Your task to perform on an android device: allow cookies in the chrome app Image 0: 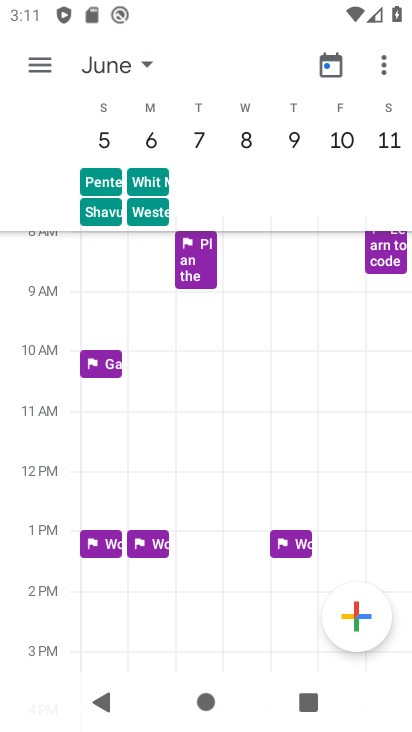
Step 0: press back button
Your task to perform on an android device: allow cookies in the chrome app Image 1: 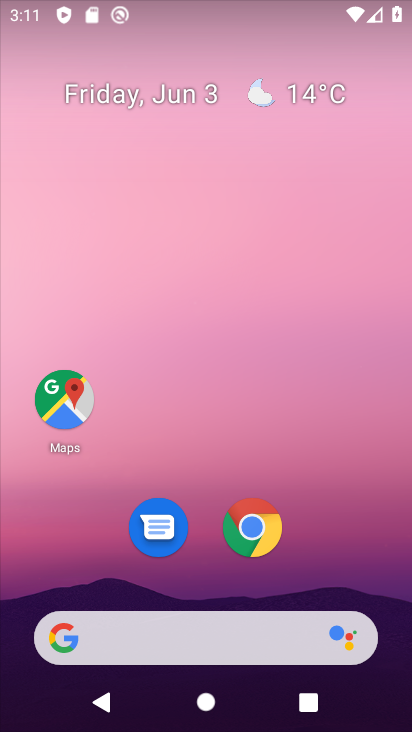
Step 1: click (254, 527)
Your task to perform on an android device: allow cookies in the chrome app Image 2: 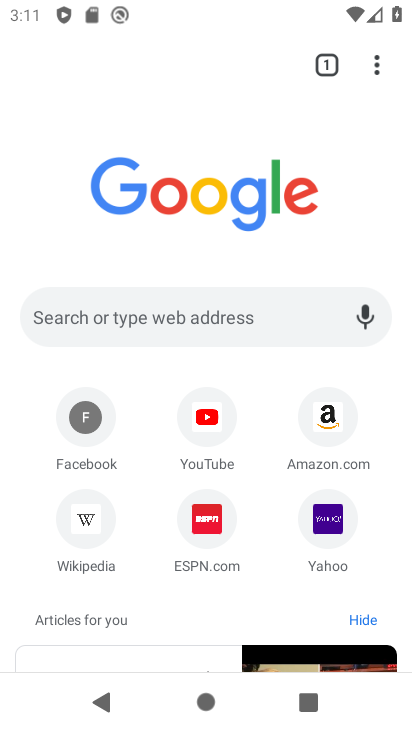
Step 2: click (377, 65)
Your task to perform on an android device: allow cookies in the chrome app Image 3: 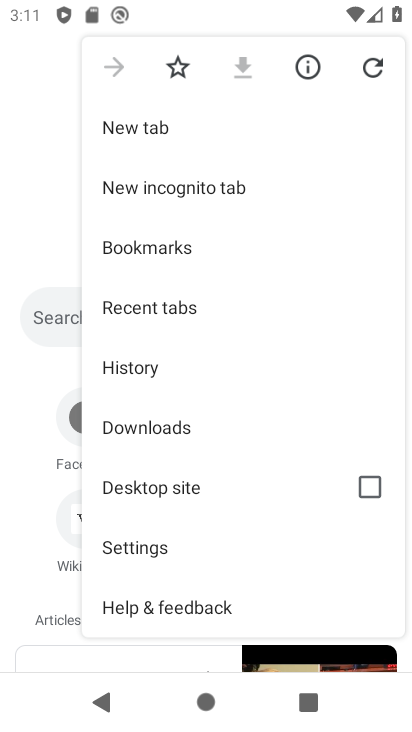
Step 3: drag from (173, 395) to (215, 316)
Your task to perform on an android device: allow cookies in the chrome app Image 4: 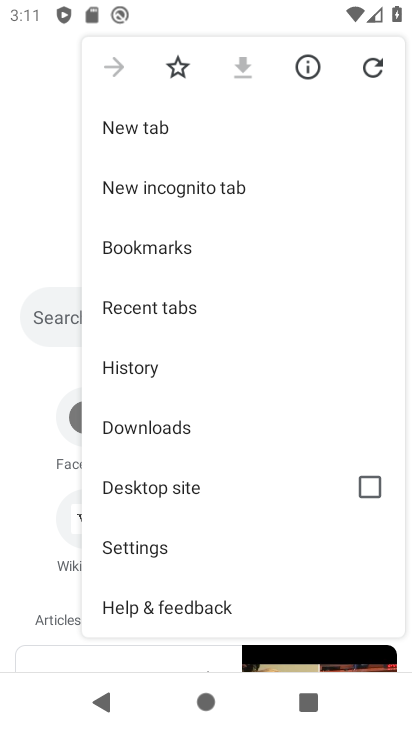
Step 4: click (144, 541)
Your task to perform on an android device: allow cookies in the chrome app Image 5: 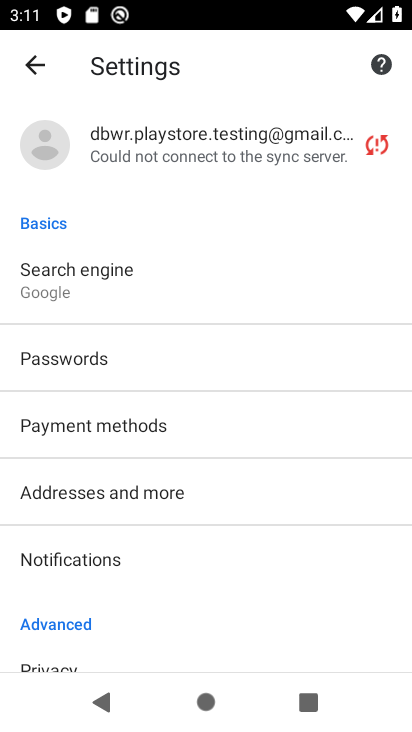
Step 5: drag from (158, 545) to (210, 459)
Your task to perform on an android device: allow cookies in the chrome app Image 6: 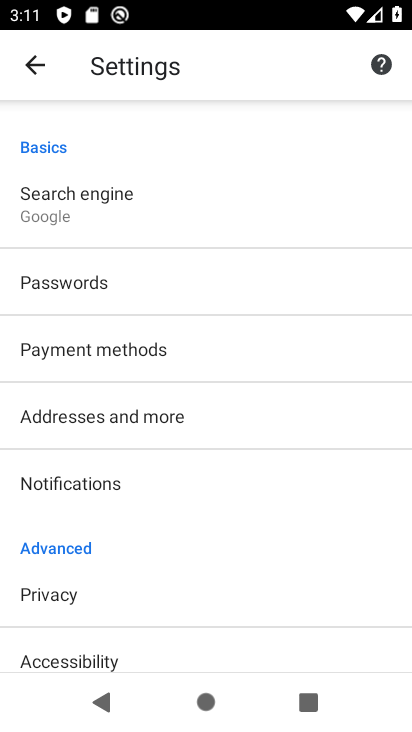
Step 6: drag from (130, 546) to (223, 437)
Your task to perform on an android device: allow cookies in the chrome app Image 7: 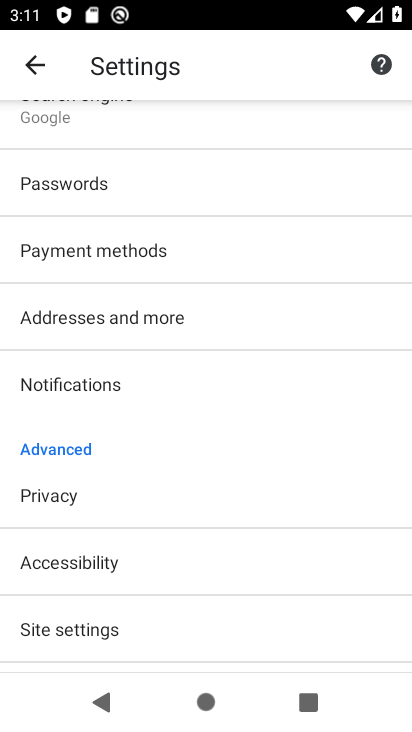
Step 7: click (90, 637)
Your task to perform on an android device: allow cookies in the chrome app Image 8: 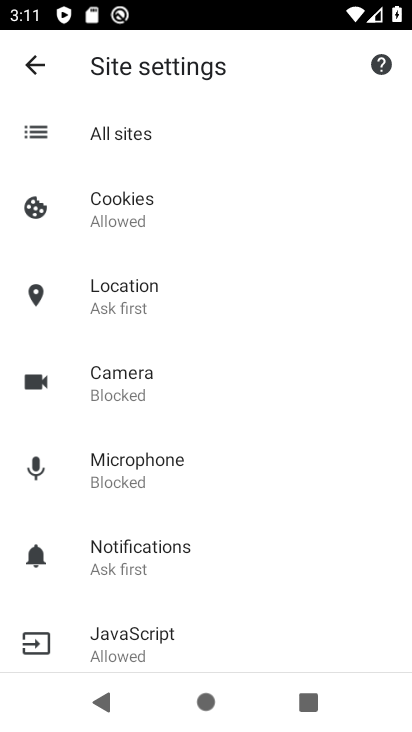
Step 8: drag from (167, 502) to (224, 425)
Your task to perform on an android device: allow cookies in the chrome app Image 9: 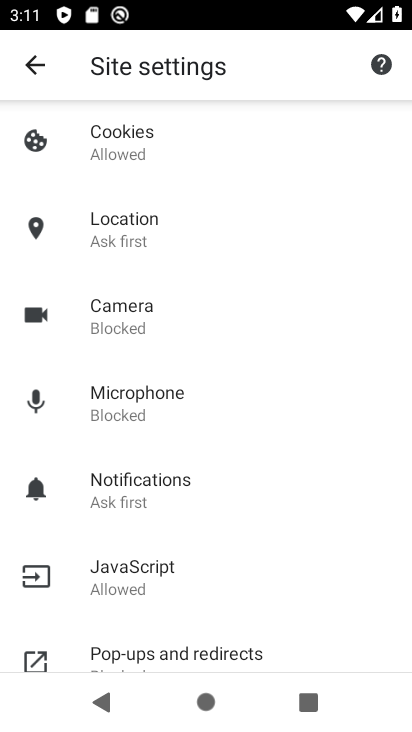
Step 9: click (176, 158)
Your task to perform on an android device: allow cookies in the chrome app Image 10: 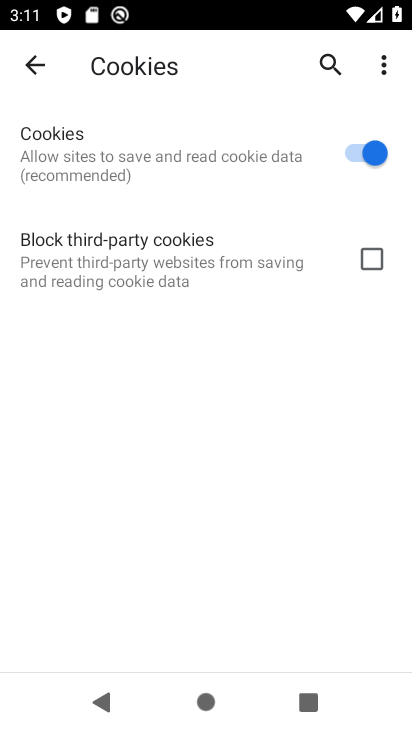
Step 10: click (363, 262)
Your task to perform on an android device: allow cookies in the chrome app Image 11: 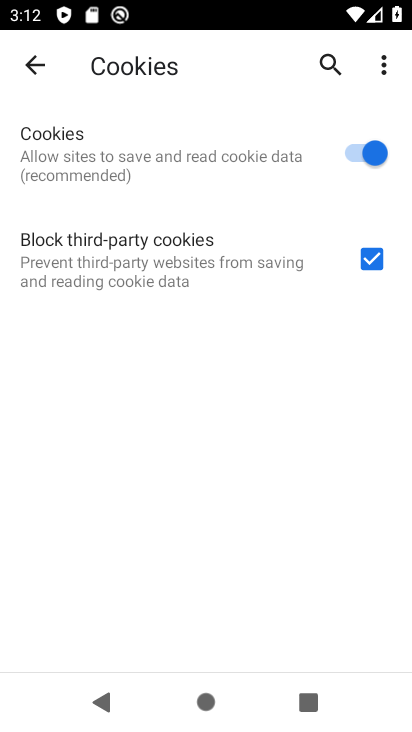
Step 11: task complete